Your task to perform on an android device: Turn off the flashlight Image 0: 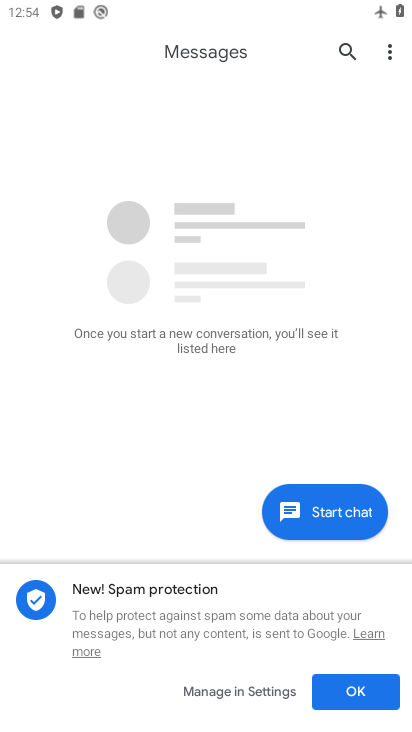
Step 0: press home button
Your task to perform on an android device: Turn off the flashlight Image 1: 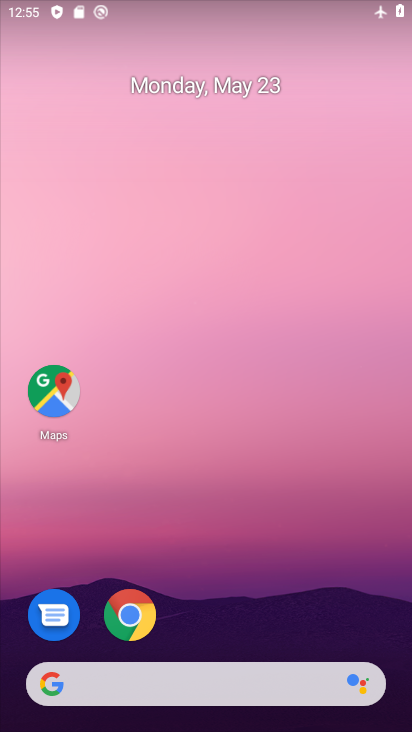
Step 1: drag from (208, 650) to (282, 44)
Your task to perform on an android device: Turn off the flashlight Image 2: 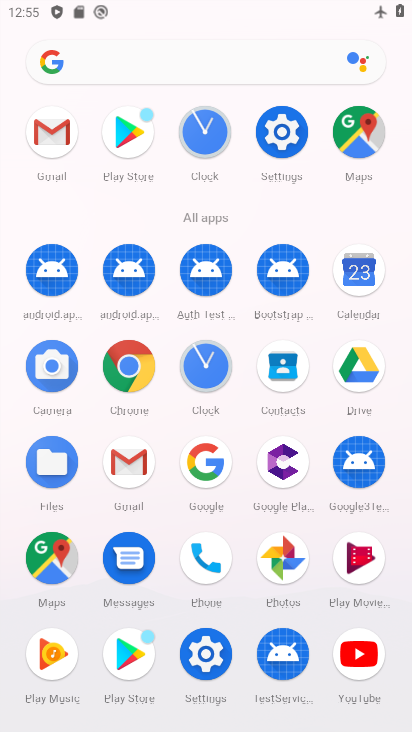
Step 2: click (275, 155)
Your task to perform on an android device: Turn off the flashlight Image 3: 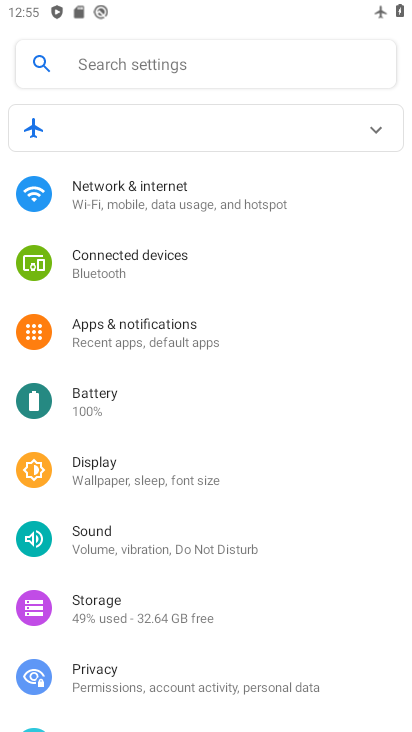
Step 3: task complete